Your task to perform on an android device: change keyboard looks Image 0: 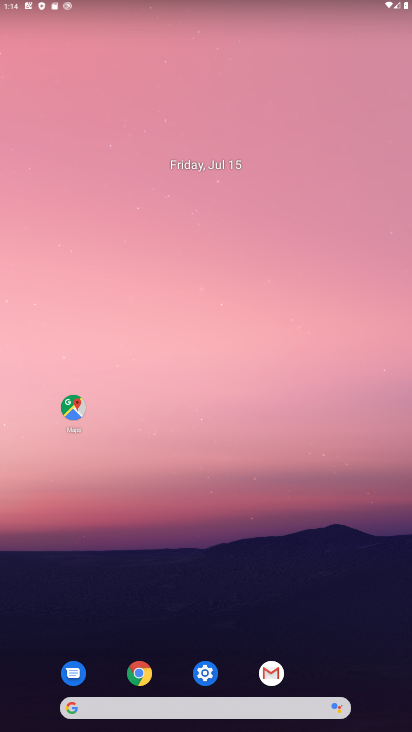
Step 0: press home button
Your task to perform on an android device: change keyboard looks Image 1: 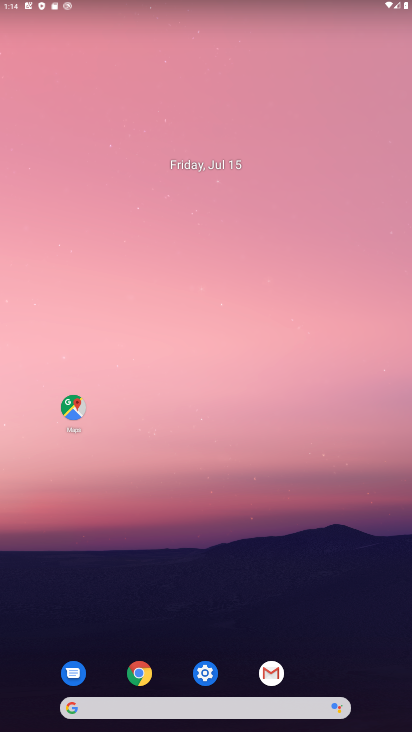
Step 1: click (200, 681)
Your task to perform on an android device: change keyboard looks Image 2: 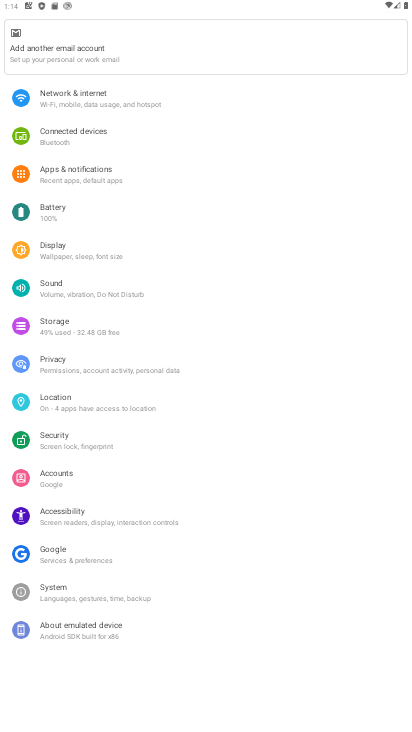
Step 2: drag from (141, 129) to (124, 224)
Your task to perform on an android device: change keyboard looks Image 3: 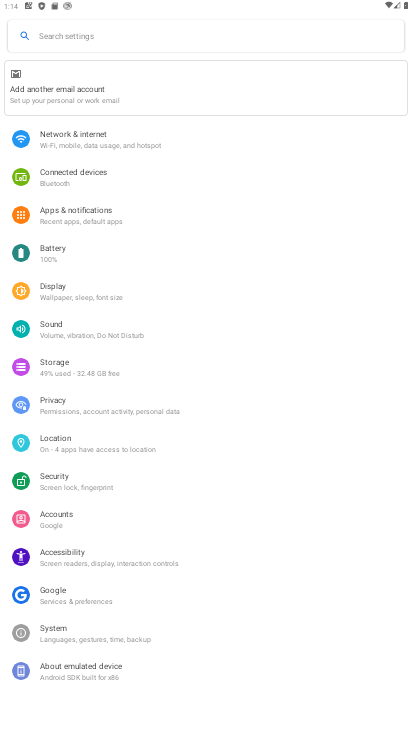
Step 3: click (68, 35)
Your task to perform on an android device: change keyboard looks Image 4: 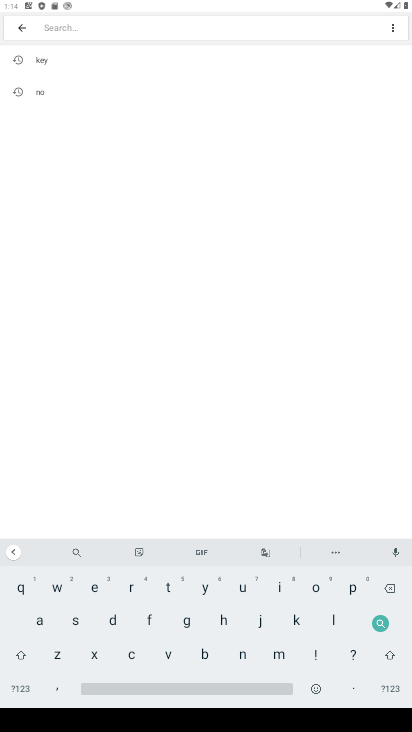
Step 4: click (297, 620)
Your task to perform on an android device: change keyboard looks Image 5: 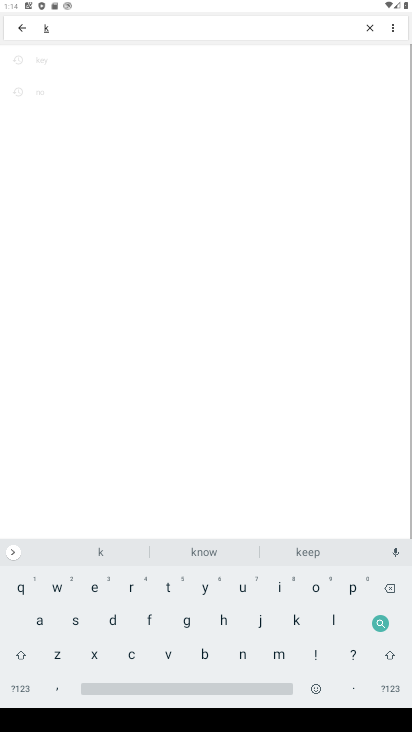
Step 5: click (96, 584)
Your task to perform on an android device: change keyboard looks Image 6: 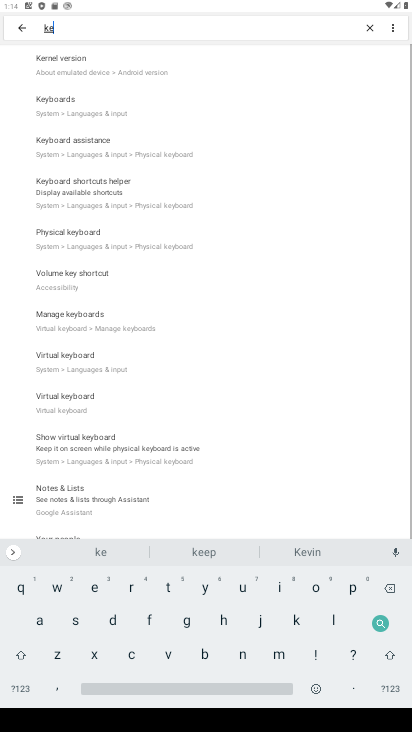
Step 6: click (208, 594)
Your task to perform on an android device: change keyboard looks Image 7: 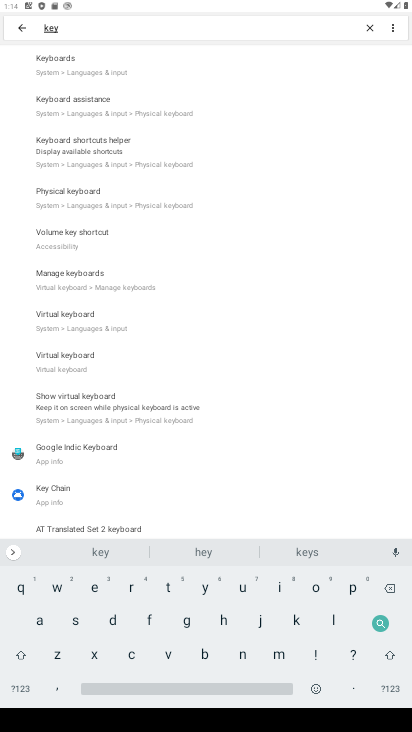
Step 7: click (142, 64)
Your task to perform on an android device: change keyboard looks Image 8: 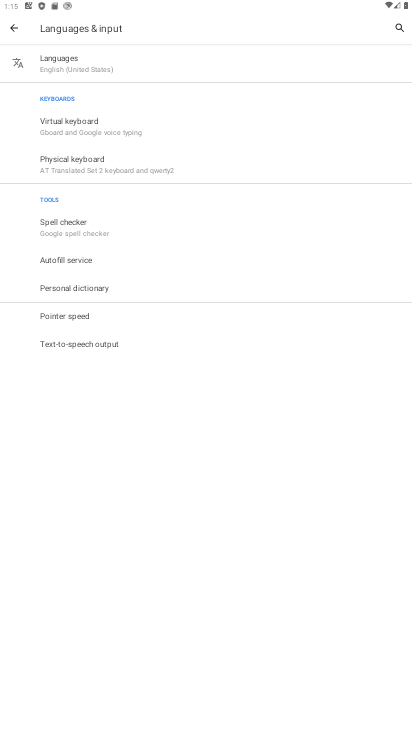
Step 8: click (75, 134)
Your task to perform on an android device: change keyboard looks Image 9: 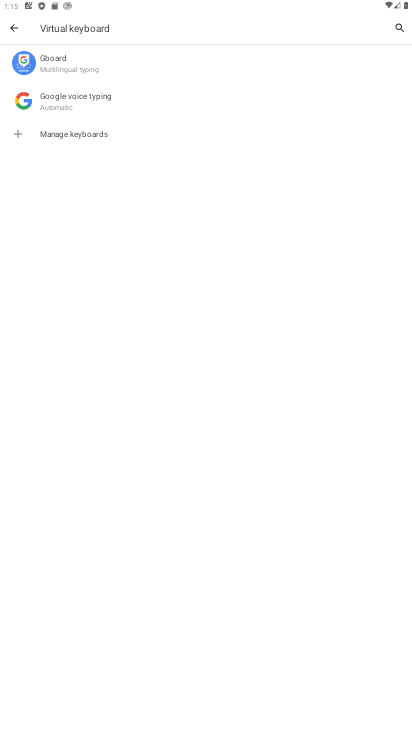
Step 9: click (76, 77)
Your task to perform on an android device: change keyboard looks Image 10: 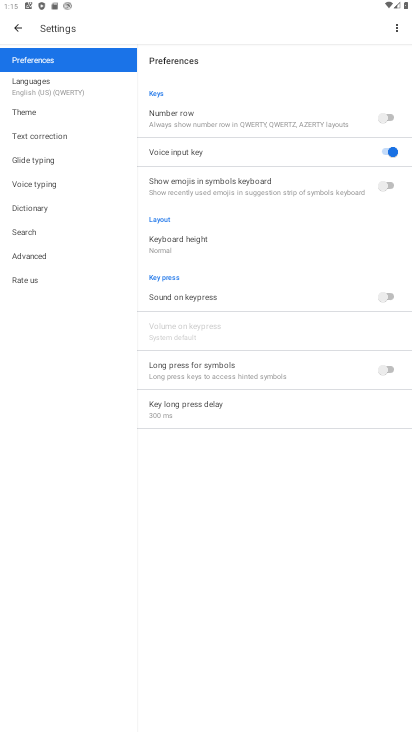
Step 10: click (43, 109)
Your task to perform on an android device: change keyboard looks Image 11: 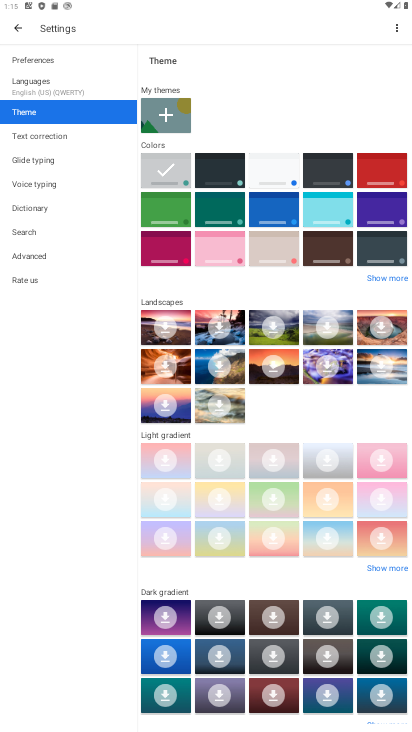
Step 11: click (223, 174)
Your task to perform on an android device: change keyboard looks Image 12: 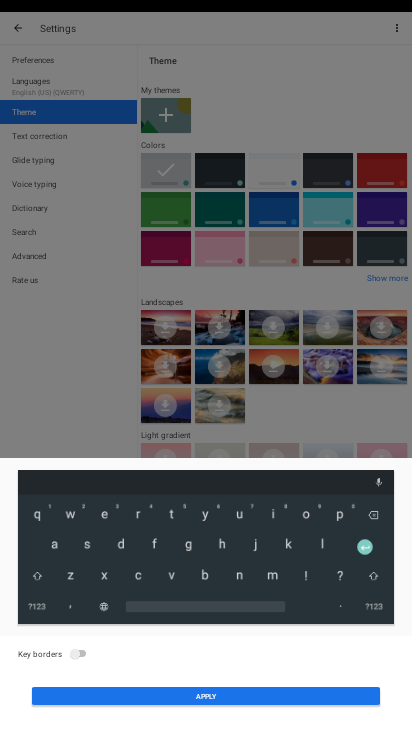
Step 12: click (85, 656)
Your task to perform on an android device: change keyboard looks Image 13: 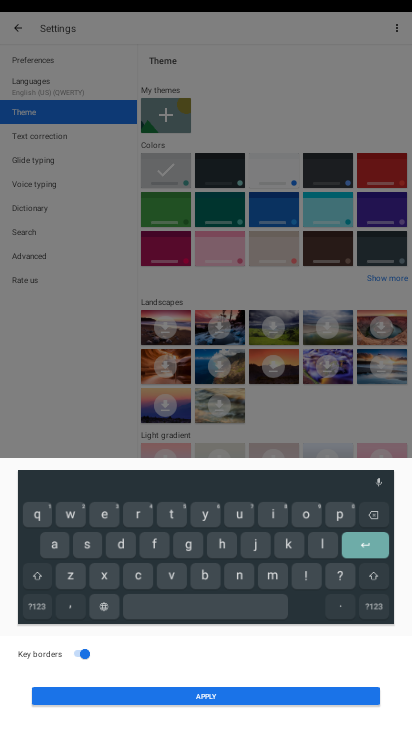
Step 13: click (176, 690)
Your task to perform on an android device: change keyboard looks Image 14: 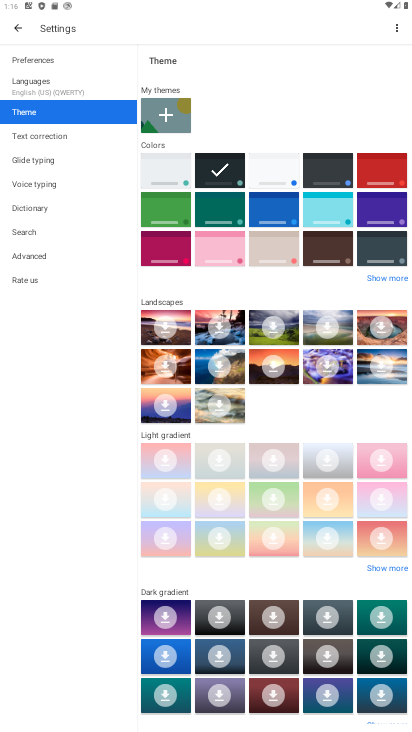
Step 14: task complete